Your task to perform on an android device: toggle notifications settings in the gmail app Image 0: 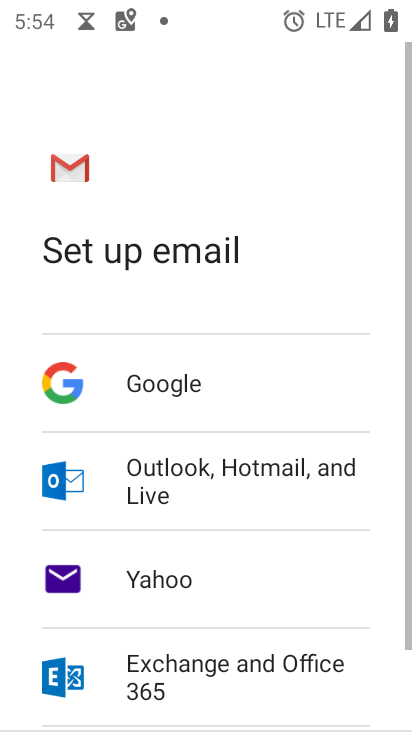
Step 0: press home button
Your task to perform on an android device: toggle notifications settings in the gmail app Image 1: 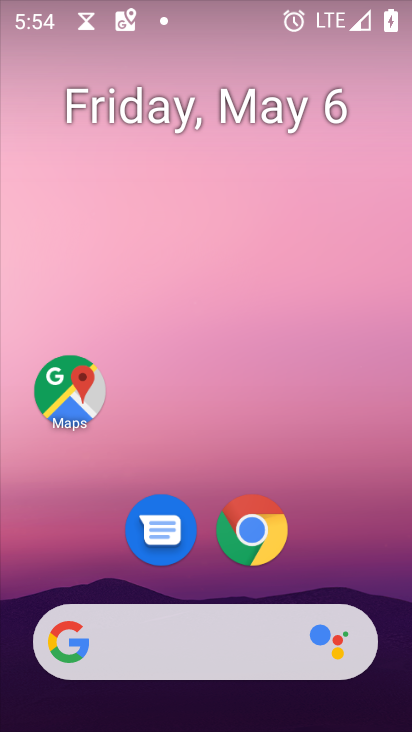
Step 1: drag from (357, 554) to (233, 100)
Your task to perform on an android device: toggle notifications settings in the gmail app Image 2: 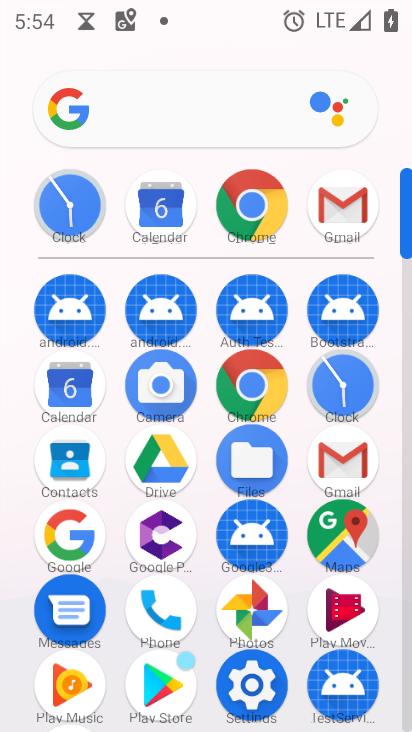
Step 2: click (340, 452)
Your task to perform on an android device: toggle notifications settings in the gmail app Image 3: 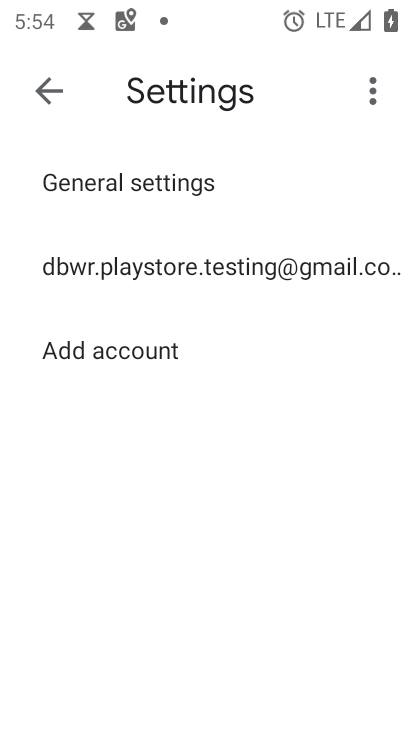
Step 3: click (164, 260)
Your task to perform on an android device: toggle notifications settings in the gmail app Image 4: 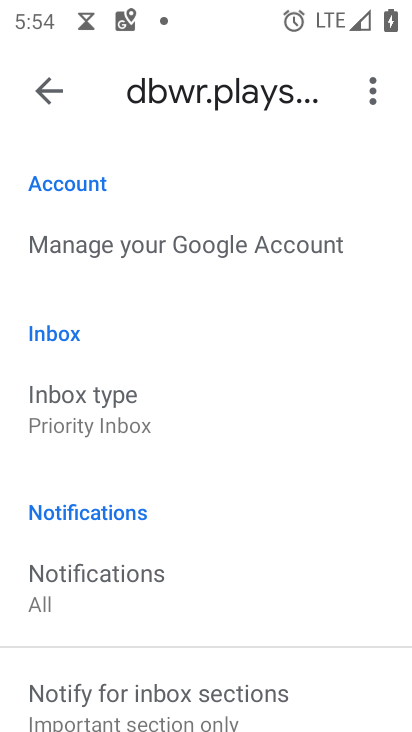
Step 4: click (108, 597)
Your task to perform on an android device: toggle notifications settings in the gmail app Image 5: 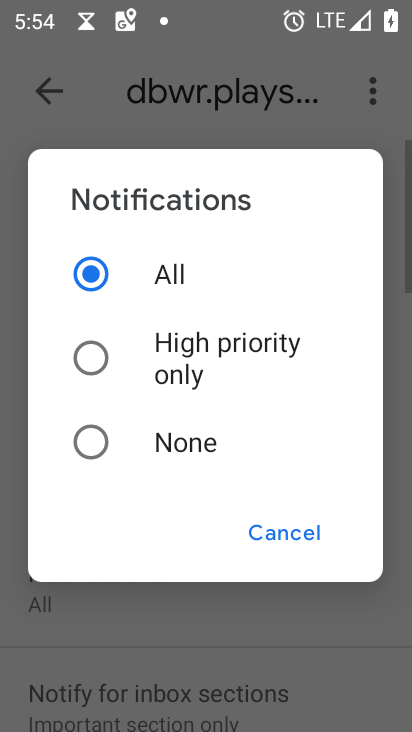
Step 5: click (168, 442)
Your task to perform on an android device: toggle notifications settings in the gmail app Image 6: 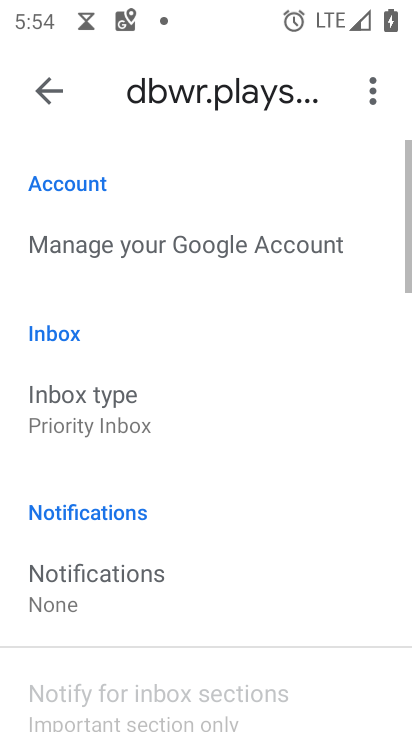
Step 6: task complete